Your task to perform on an android device: turn off notifications in google photos Image 0: 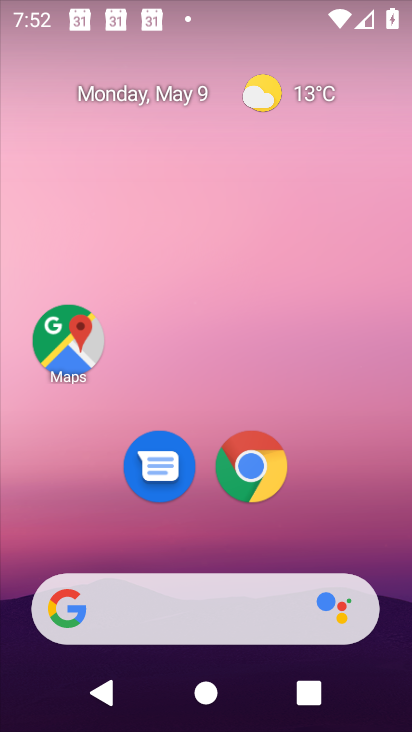
Step 0: drag from (319, 497) to (336, 279)
Your task to perform on an android device: turn off notifications in google photos Image 1: 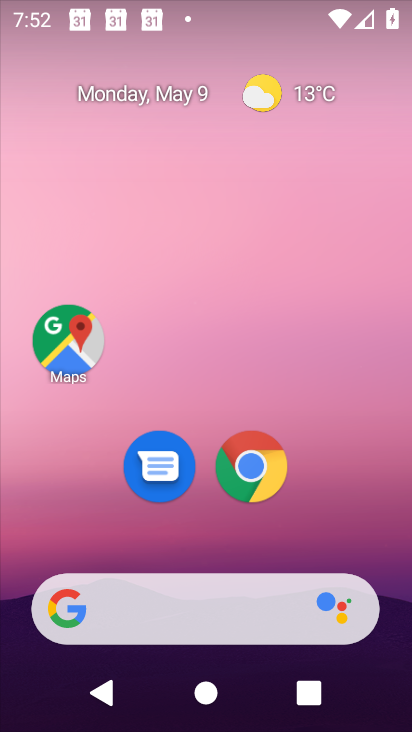
Step 1: drag from (300, 533) to (293, 217)
Your task to perform on an android device: turn off notifications in google photos Image 2: 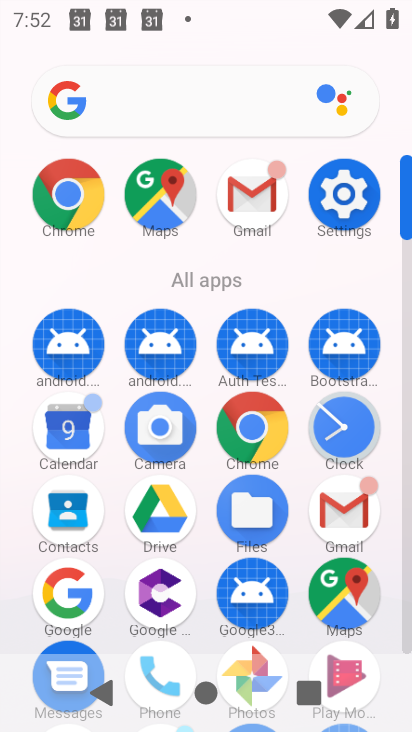
Step 2: drag from (167, 621) to (205, 328)
Your task to perform on an android device: turn off notifications in google photos Image 3: 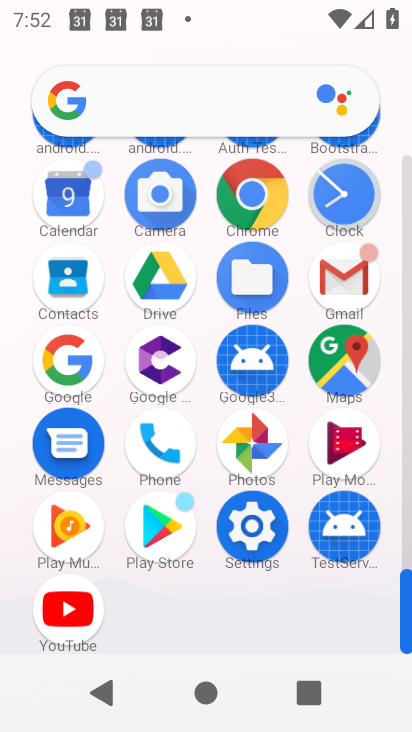
Step 3: click (239, 456)
Your task to perform on an android device: turn off notifications in google photos Image 4: 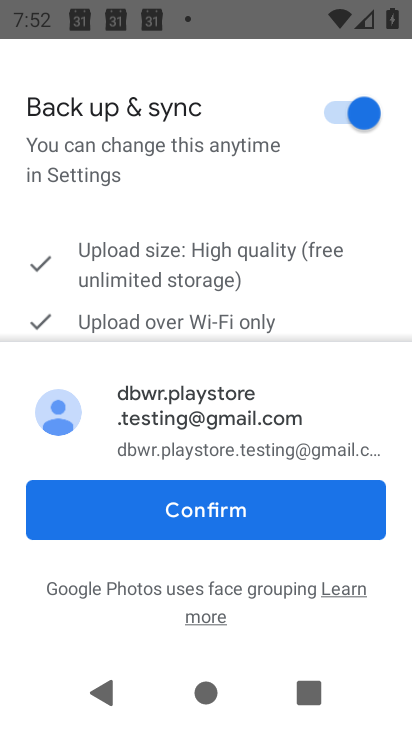
Step 4: click (118, 507)
Your task to perform on an android device: turn off notifications in google photos Image 5: 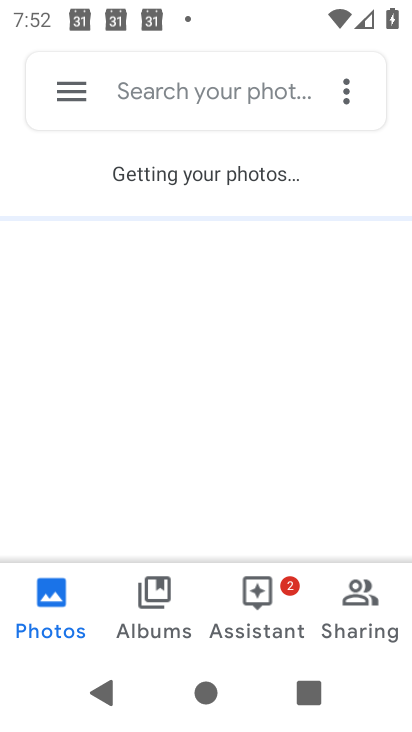
Step 5: click (60, 86)
Your task to perform on an android device: turn off notifications in google photos Image 6: 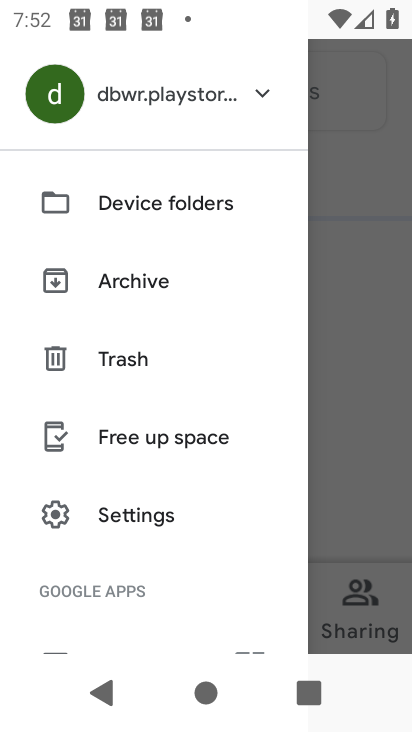
Step 6: click (171, 495)
Your task to perform on an android device: turn off notifications in google photos Image 7: 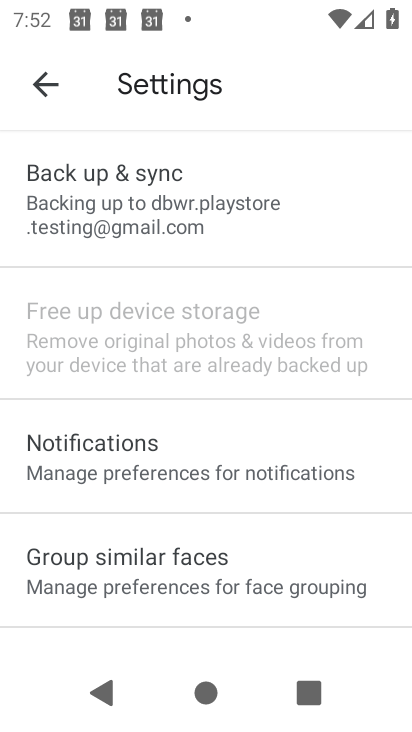
Step 7: drag from (181, 444) to (177, 546)
Your task to perform on an android device: turn off notifications in google photos Image 8: 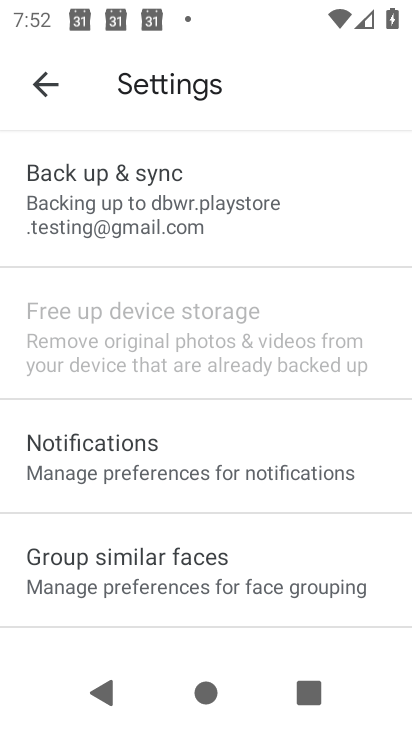
Step 8: click (186, 446)
Your task to perform on an android device: turn off notifications in google photos Image 9: 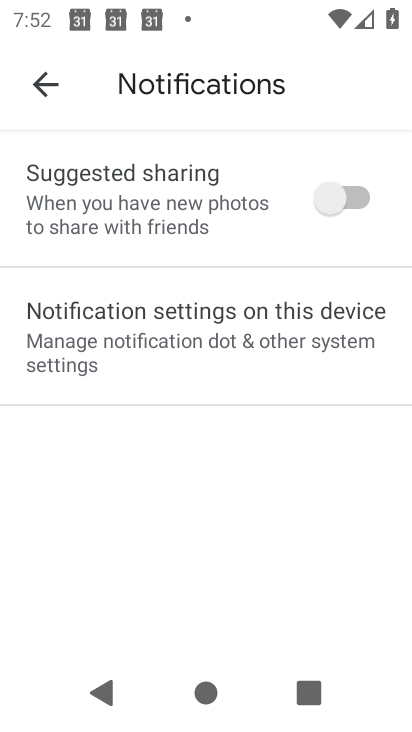
Step 9: click (229, 317)
Your task to perform on an android device: turn off notifications in google photos Image 10: 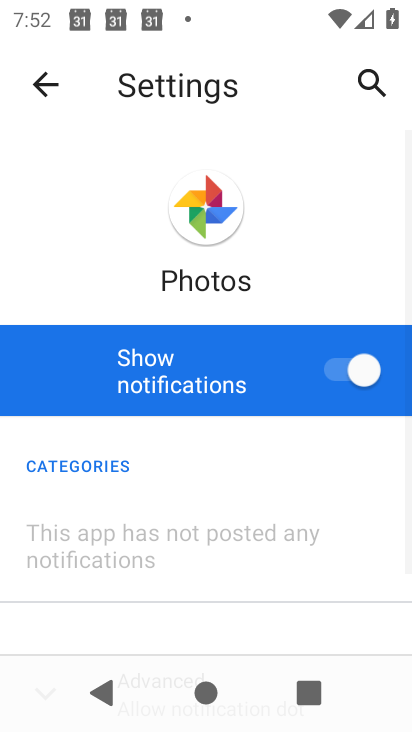
Step 10: click (341, 352)
Your task to perform on an android device: turn off notifications in google photos Image 11: 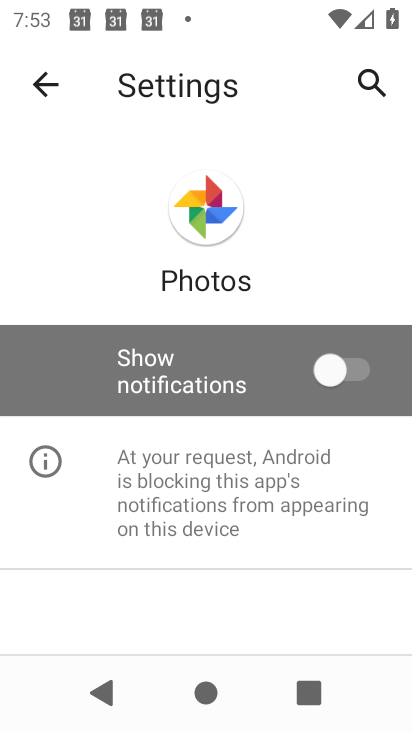
Step 11: task complete